Your task to perform on an android device: Play the last video I watched on Youtube Image 0: 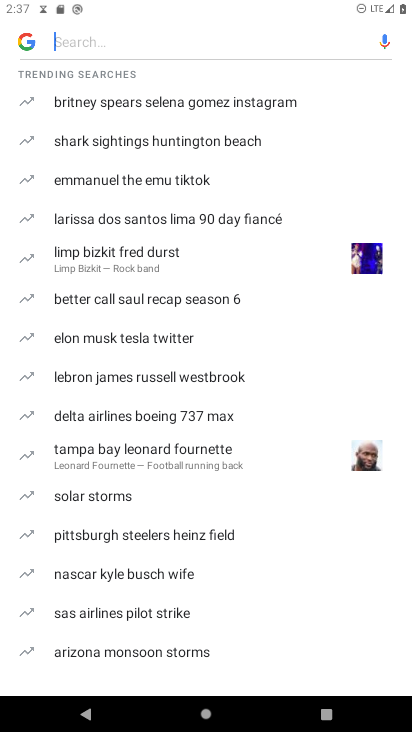
Step 0: press home button
Your task to perform on an android device: Play the last video I watched on Youtube Image 1: 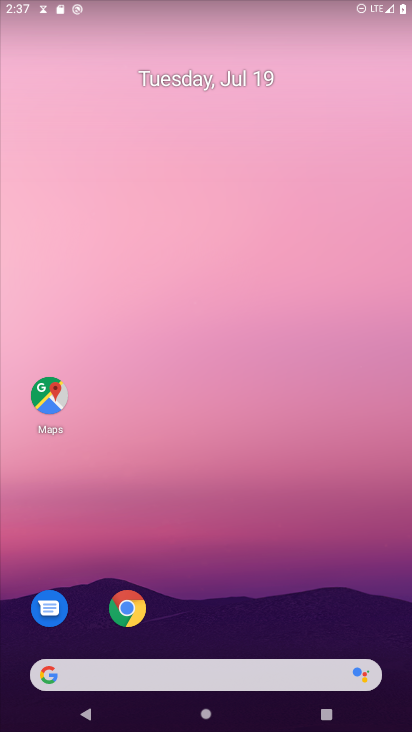
Step 1: drag from (168, 675) to (186, 56)
Your task to perform on an android device: Play the last video I watched on Youtube Image 2: 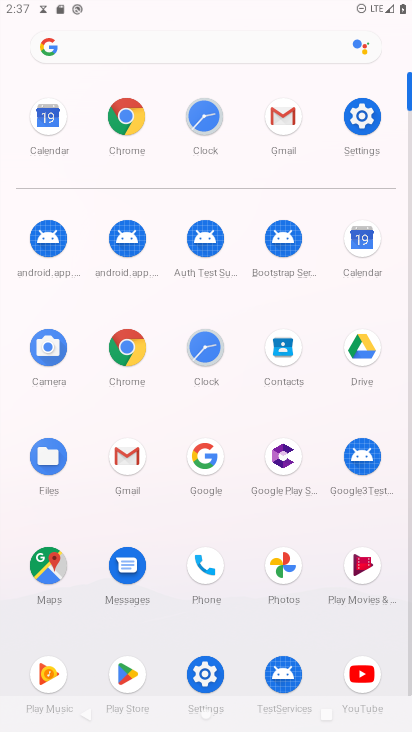
Step 2: click (367, 677)
Your task to perform on an android device: Play the last video I watched on Youtube Image 3: 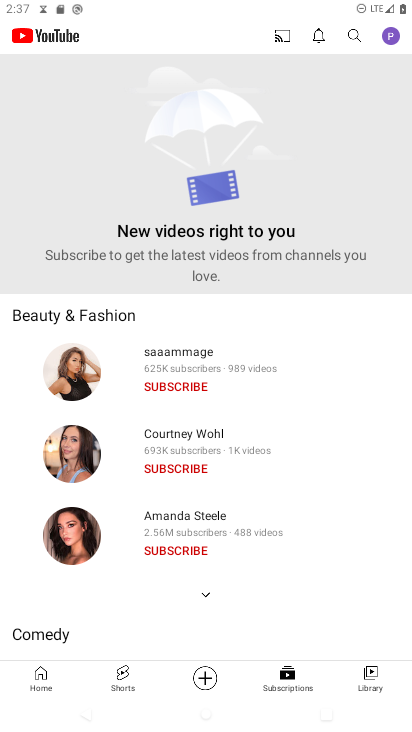
Step 3: click (377, 675)
Your task to perform on an android device: Play the last video I watched on Youtube Image 4: 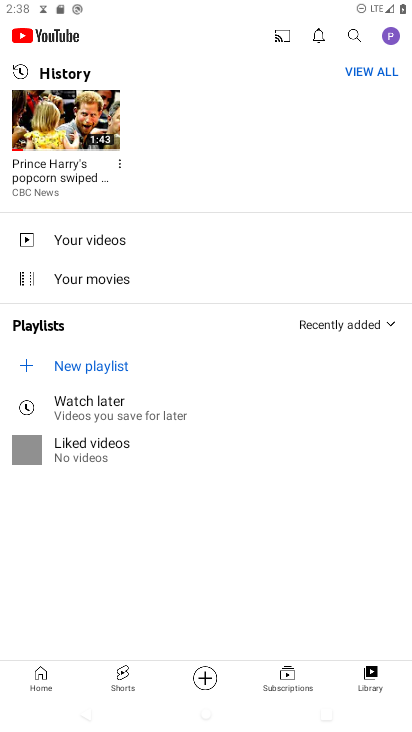
Step 4: click (97, 131)
Your task to perform on an android device: Play the last video I watched on Youtube Image 5: 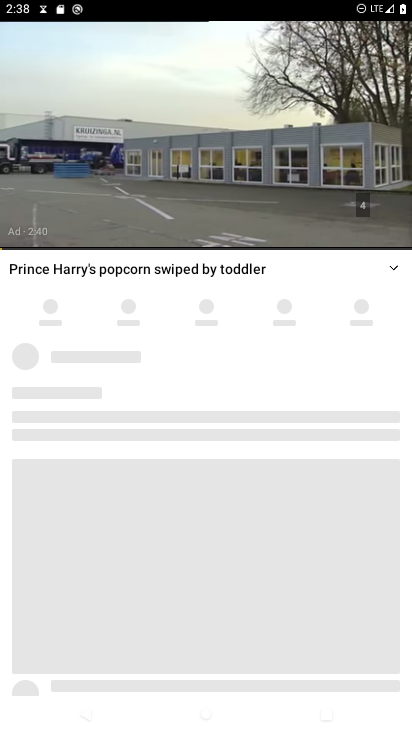
Step 5: task complete